Your task to perform on an android device: Go to battery settings Image 0: 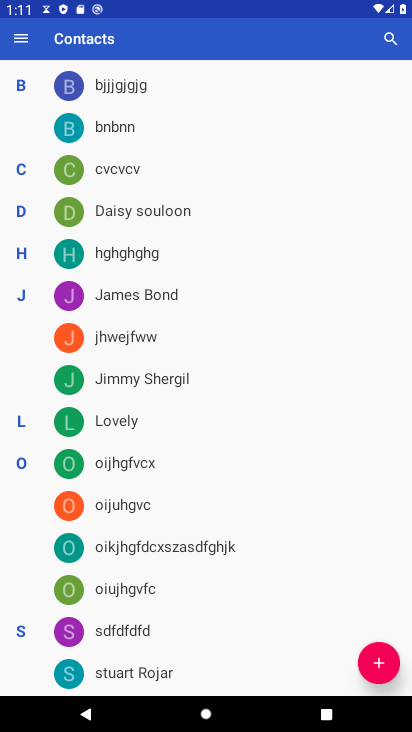
Step 0: press home button
Your task to perform on an android device: Go to battery settings Image 1: 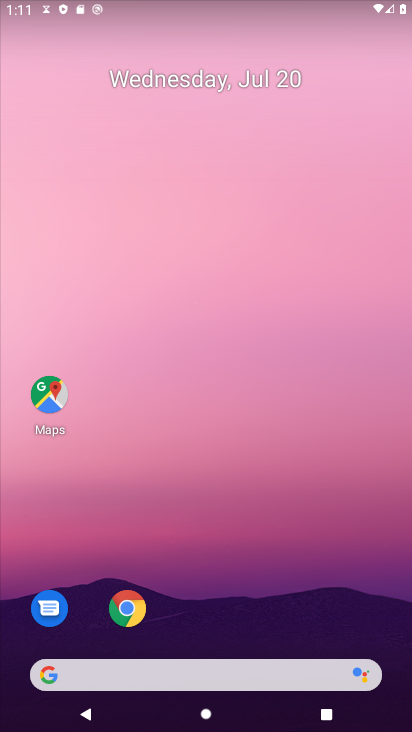
Step 1: drag from (197, 678) to (208, 194)
Your task to perform on an android device: Go to battery settings Image 2: 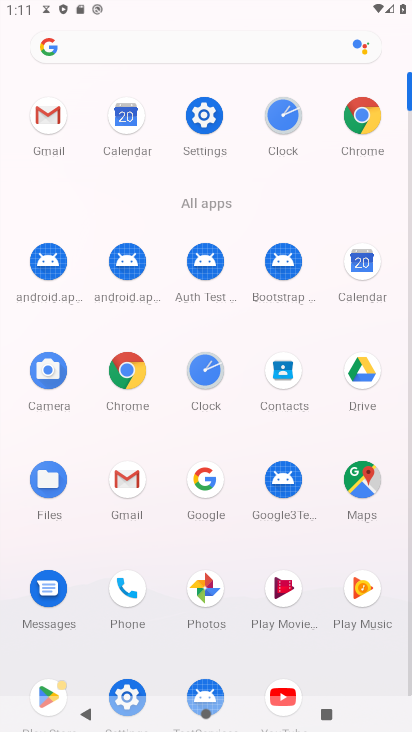
Step 2: click (204, 116)
Your task to perform on an android device: Go to battery settings Image 3: 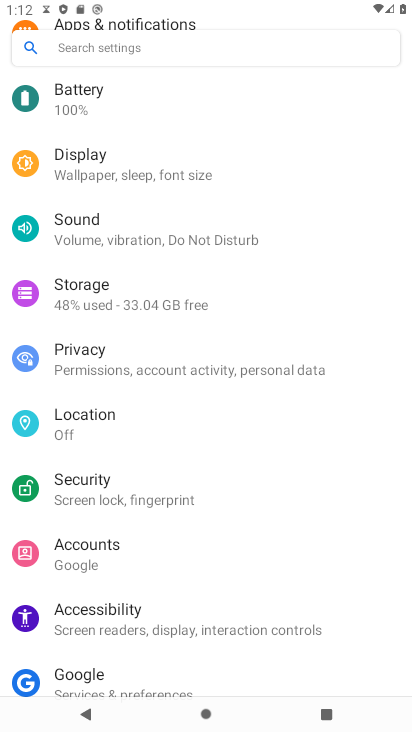
Step 3: click (88, 108)
Your task to perform on an android device: Go to battery settings Image 4: 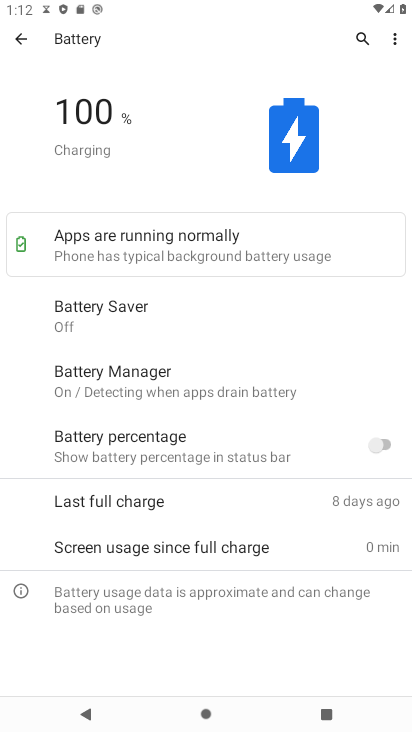
Step 4: task complete